Your task to perform on an android device: all mails in gmail Image 0: 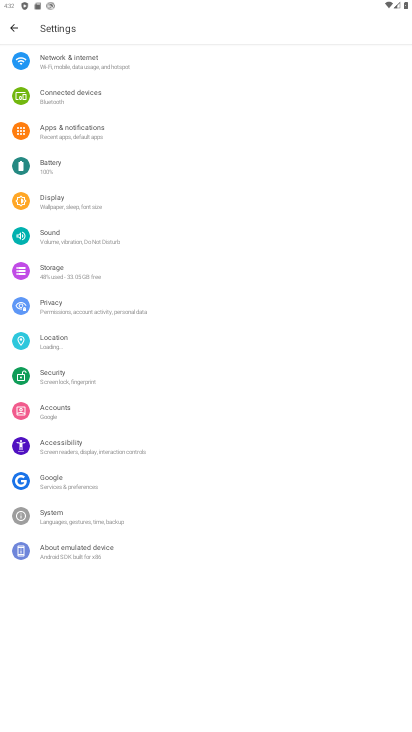
Step 0: press home button
Your task to perform on an android device: all mails in gmail Image 1: 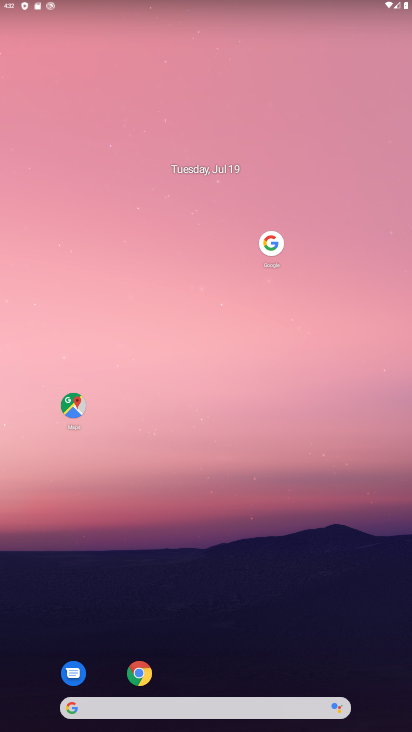
Step 1: drag from (229, 588) to (213, 69)
Your task to perform on an android device: all mails in gmail Image 2: 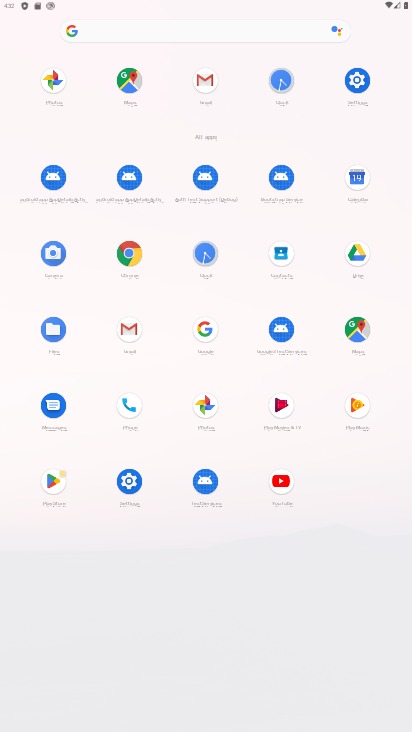
Step 2: click (207, 91)
Your task to perform on an android device: all mails in gmail Image 3: 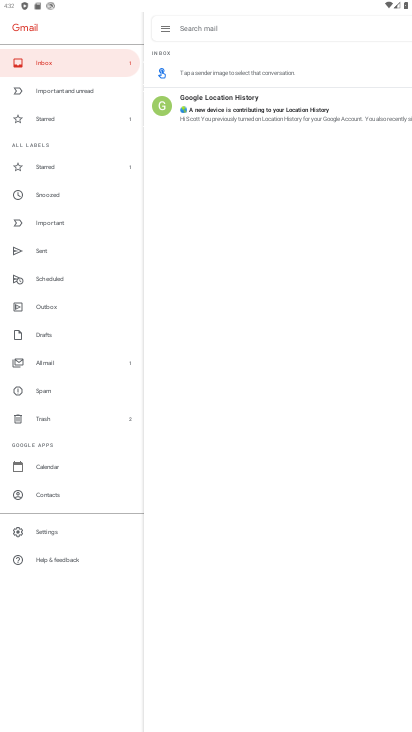
Step 3: click (41, 359)
Your task to perform on an android device: all mails in gmail Image 4: 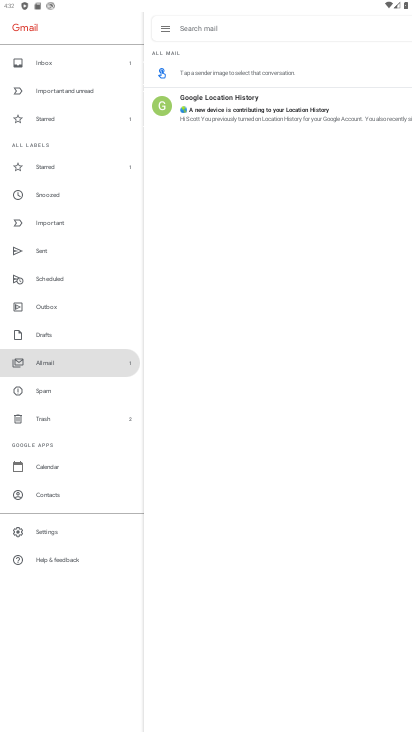
Step 4: task complete